Your task to perform on an android device: turn on translation in the chrome app Image 0: 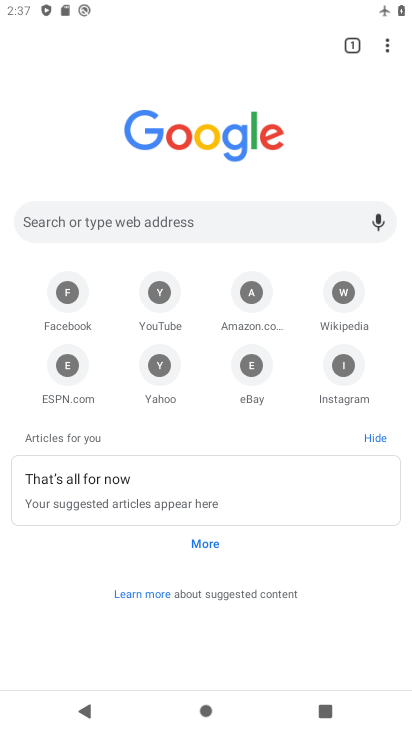
Step 0: click (390, 50)
Your task to perform on an android device: turn on translation in the chrome app Image 1: 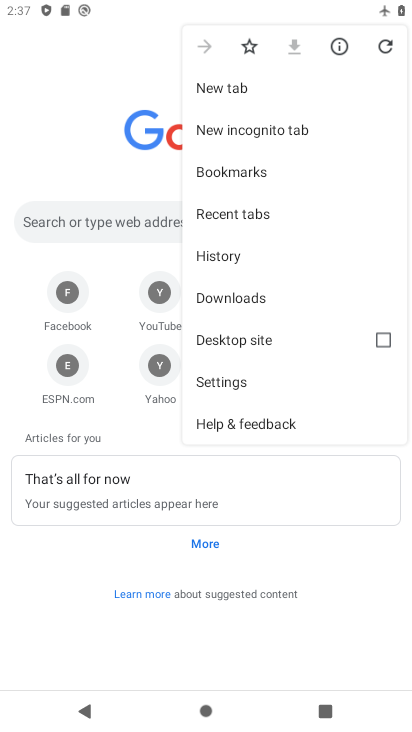
Step 1: click (276, 381)
Your task to perform on an android device: turn on translation in the chrome app Image 2: 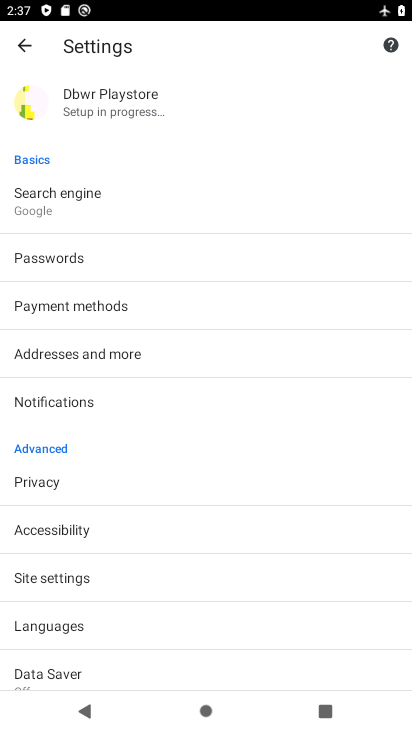
Step 2: click (140, 632)
Your task to perform on an android device: turn on translation in the chrome app Image 3: 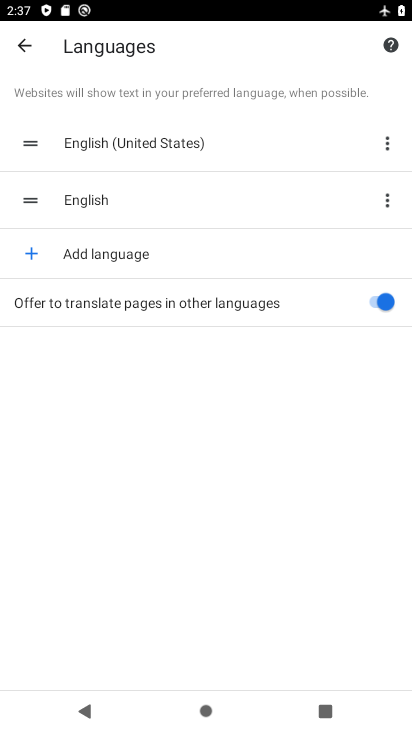
Step 3: task complete